Your task to perform on an android device: When is my next meeting? Image 0: 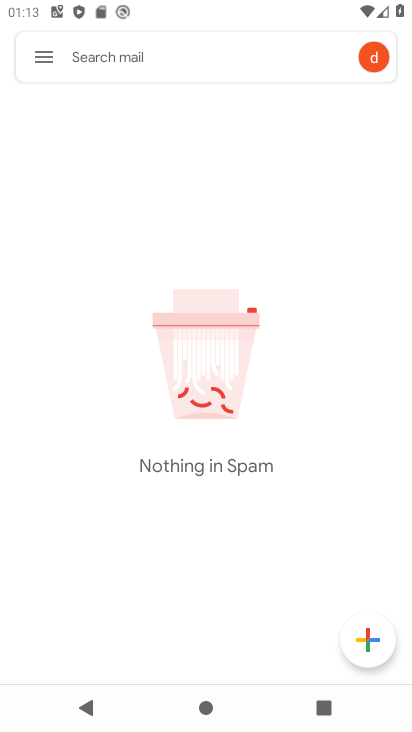
Step 0: press home button
Your task to perform on an android device: When is my next meeting? Image 1: 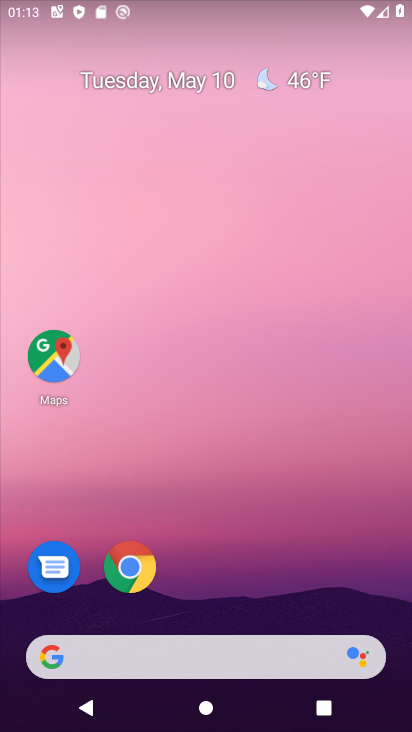
Step 1: drag from (114, 490) to (136, 157)
Your task to perform on an android device: When is my next meeting? Image 2: 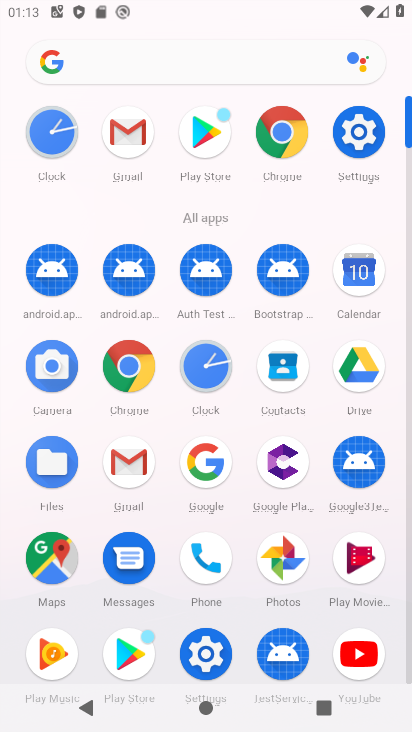
Step 2: click (339, 288)
Your task to perform on an android device: When is my next meeting? Image 3: 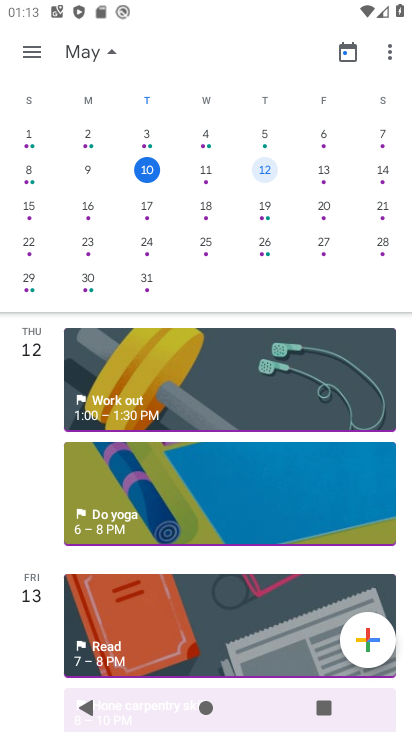
Step 3: click (200, 173)
Your task to perform on an android device: When is my next meeting? Image 4: 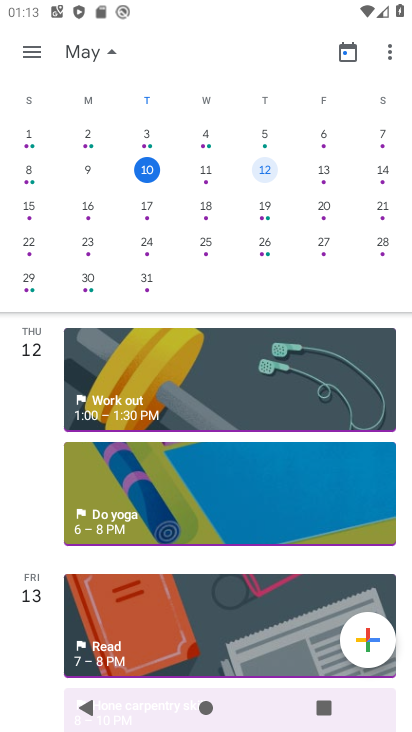
Step 4: click (211, 180)
Your task to perform on an android device: When is my next meeting? Image 5: 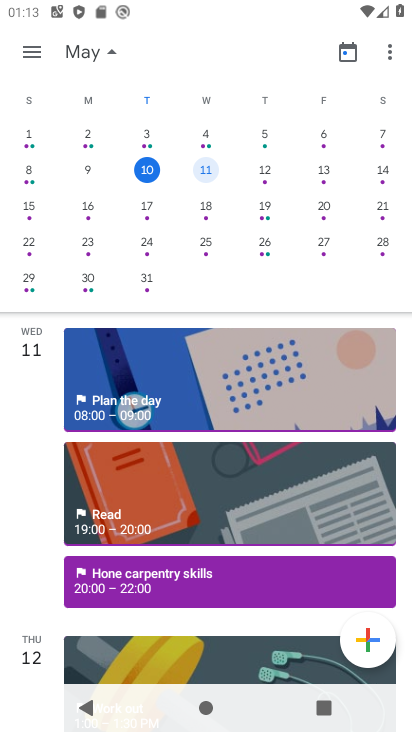
Step 5: click (262, 177)
Your task to perform on an android device: When is my next meeting? Image 6: 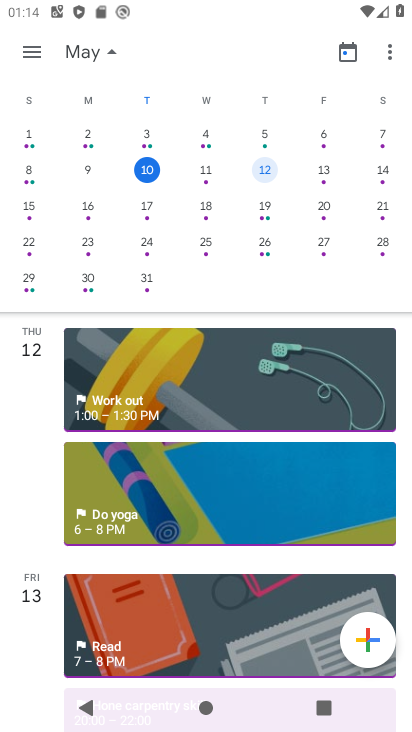
Step 6: click (324, 180)
Your task to perform on an android device: When is my next meeting? Image 7: 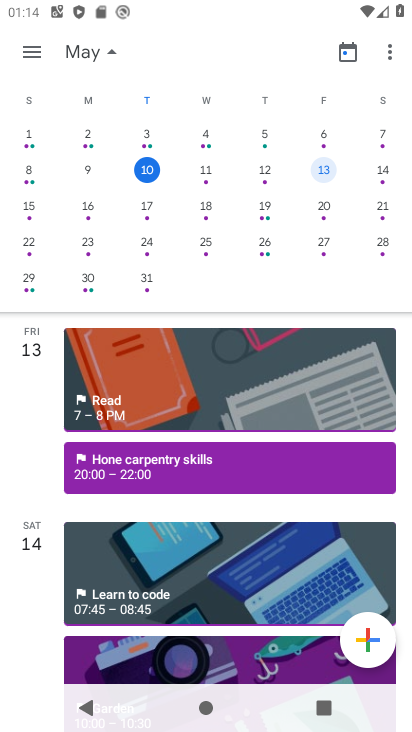
Step 7: click (383, 171)
Your task to perform on an android device: When is my next meeting? Image 8: 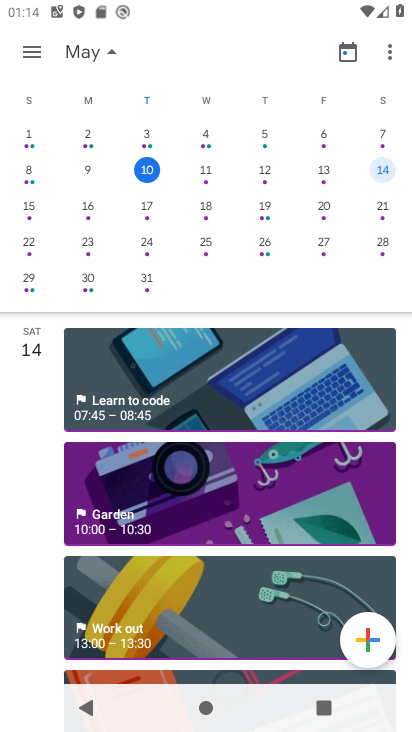
Step 8: task complete